Your task to perform on an android device: Open Google Maps Image 0: 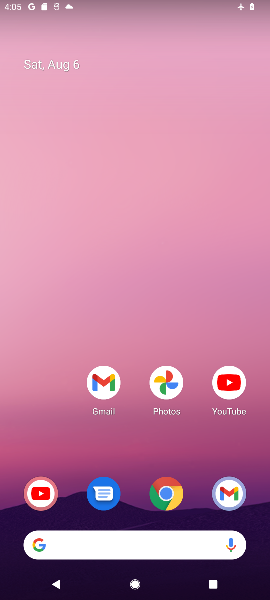
Step 0: drag from (175, 575) to (91, 241)
Your task to perform on an android device: Open Google Maps Image 1: 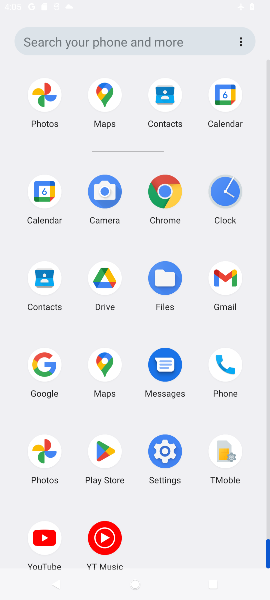
Step 1: drag from (145, 361) to (112, 184)
Your task to perform on an android device: Open Google Maps Image 2: 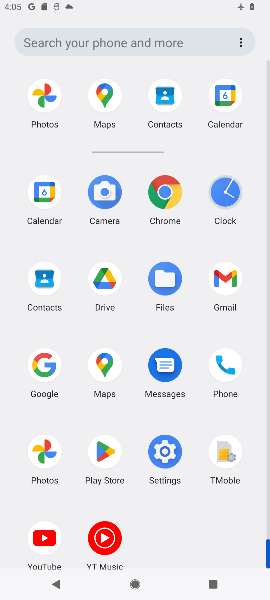
Step 2: click (235, 276)
Your task to perform on an android device: Open Google Maps Image 3: 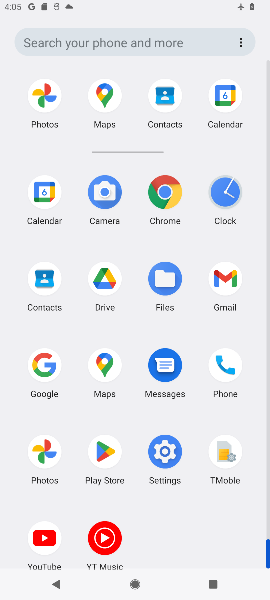
Step 3: click (235, 276)
Your task to perform on an android device: Open Google Maps Image 4: 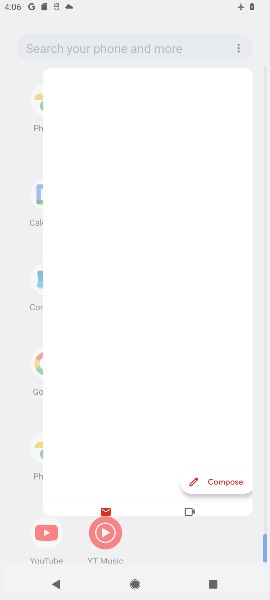
Step 4: click (235, 276)
Your task to perform on an android device: Open Google Maps Image 5: 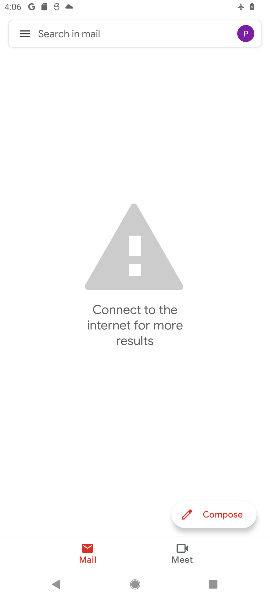
Step 5: click (31, 33)
Your task to perform on an android device: Open Google Maps Image 6: 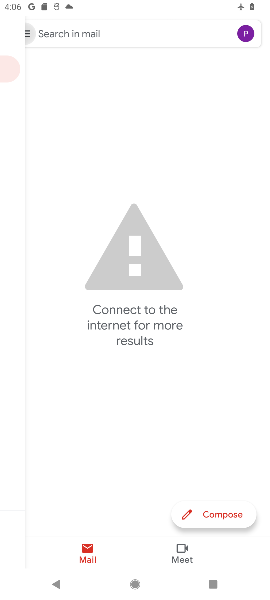
Step 6: click (30, 32)
Your task to perform on an android device: Open Google Maps Image 7: 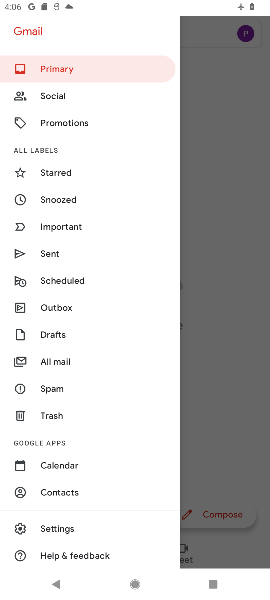
Step 7: press back button
Your task to perform on an android device: Open Google Maps Image 8: 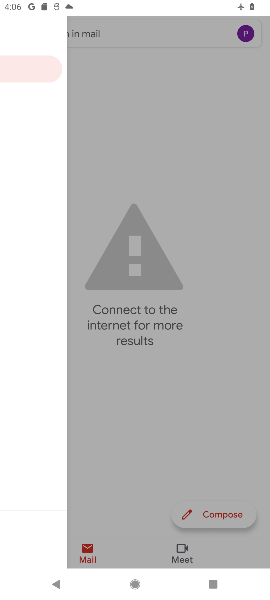
Step 8: press back button
Your task to perform on an android device: Open Google Maps Image 9: 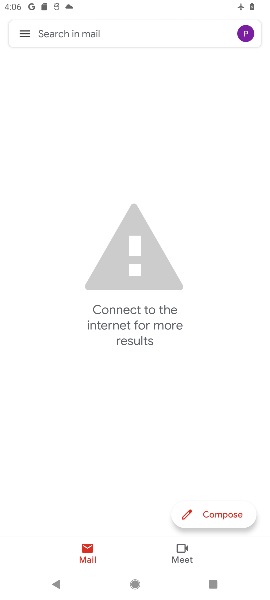
Step 9: press back button
Your task to perform on an android device: Open Google Maps Image 10: 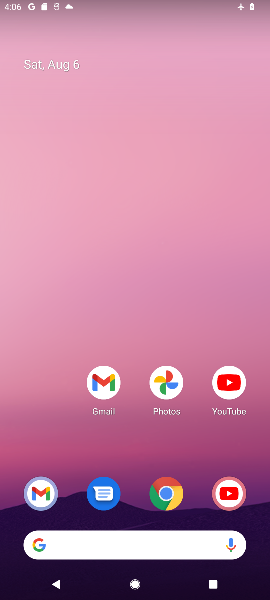
Step 10: drag from (184, 497) to (153, 227)
Your task to perform on an android device: Open Google Maps Image 11: 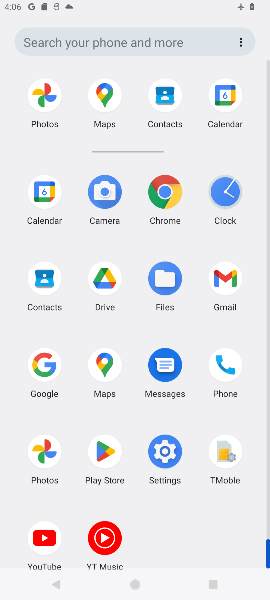
Step 11: drag from (171, 448) to (152, 203)
Your task to perform on an android device: Open Google Maps Image 12: 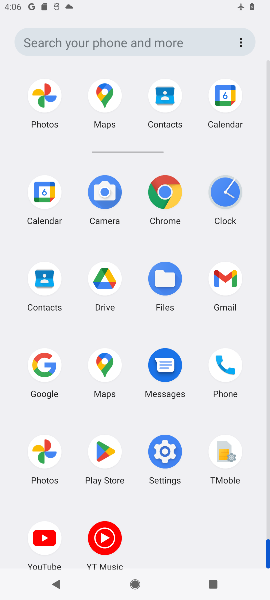
Step 12: click (103, 361)
Your task to perform on an android device: Open Google Maps Image 13: 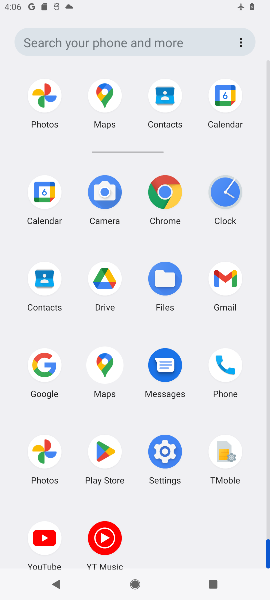
Step 13: click (103, 361)
Your task to perform on an android device: Open Google Maps Image 14: 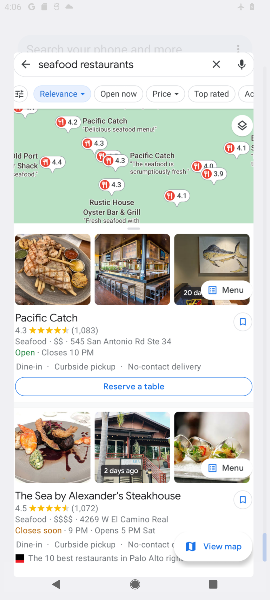
Step 14: click (103, 361)
Your task to perform on an android device: Open Google Maps Image 15: 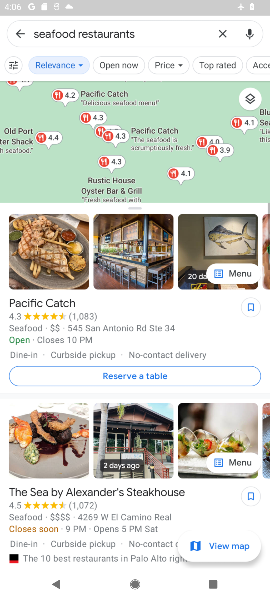
Step 15: click (102, 361)
Your task to perform on an android device: Open Google Maps Image 16: 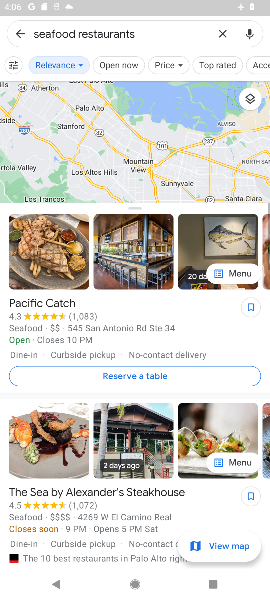
Step 16: task complete